Your task to perform on an android device: Open settings Image 0: 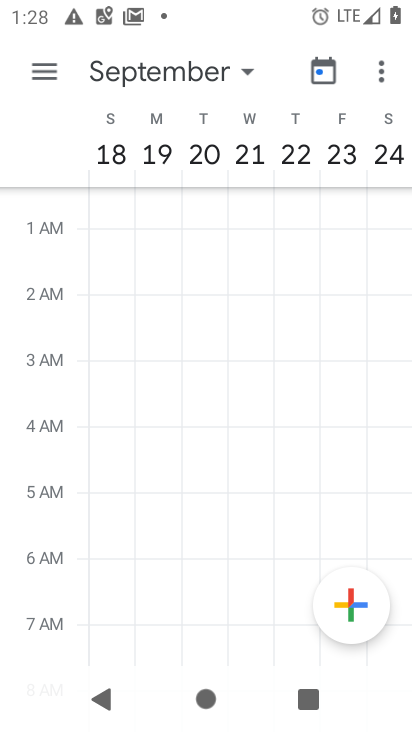
Step 0: press home button
Your task to perform on an android device: Open settings Image 1: 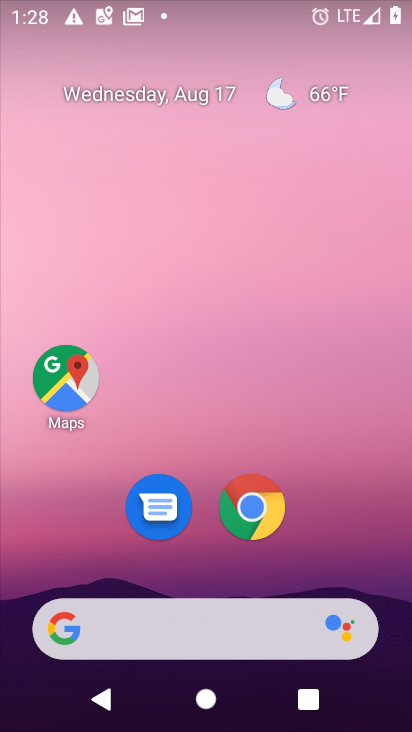
Step 1: drag from (195, 564) to (134, 53)
Your task to perform on an android device: Open settings Image 2: 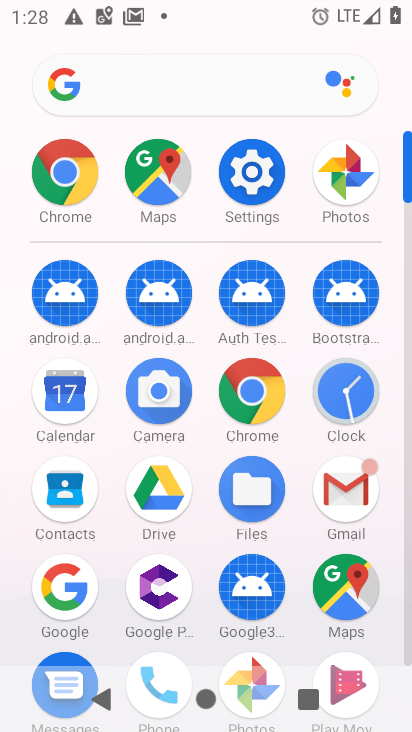
Step 2: click (249, 156)
Your task to perform on an android device: Open settings Image 3: 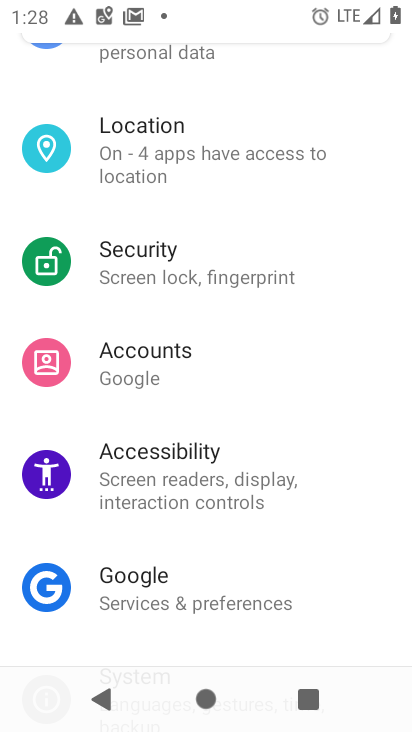
Step 3: task complete